Your task to perform on an android device: change the clock style Image 0: 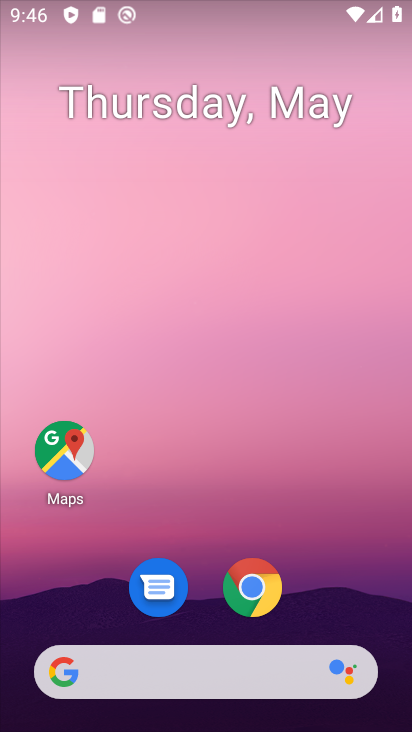
Step 0: drag from (332, 622) to (359, 136)
Your task to perform on an android device: change the clock style Image 1: 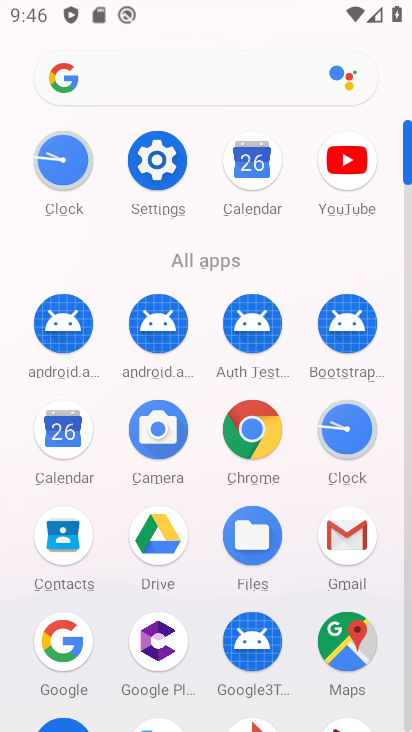
Step 1: click (141, 273)
Your task to perform on an android device: change the clock style Image 2: 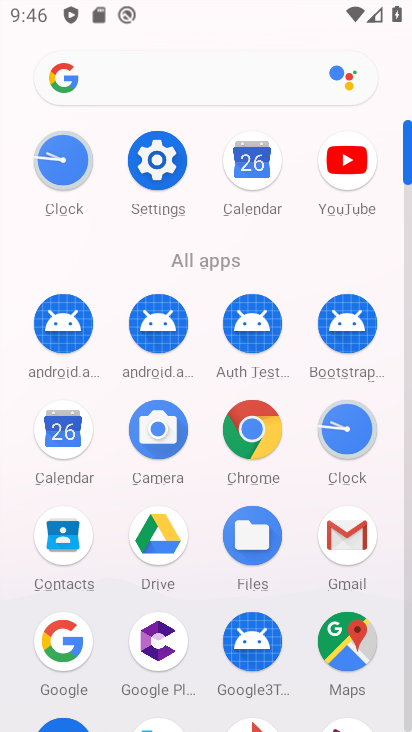
Step 2: click (336, 427)
Your task to perform on an android device: change the clock style Image 3: 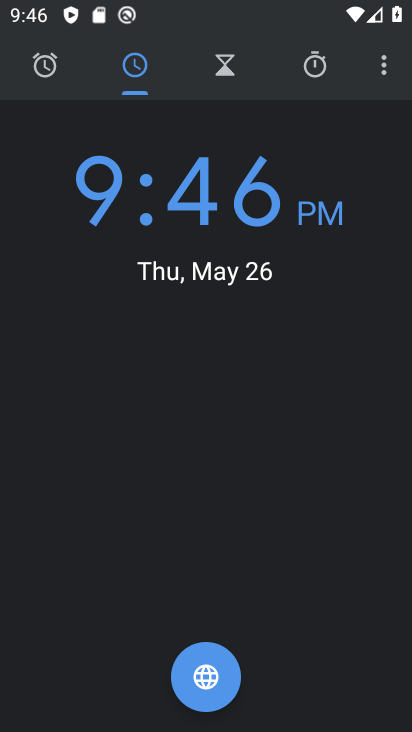
Step 3: click (386, 70)
Your task to perform on an android device: change the clock style Image 4: 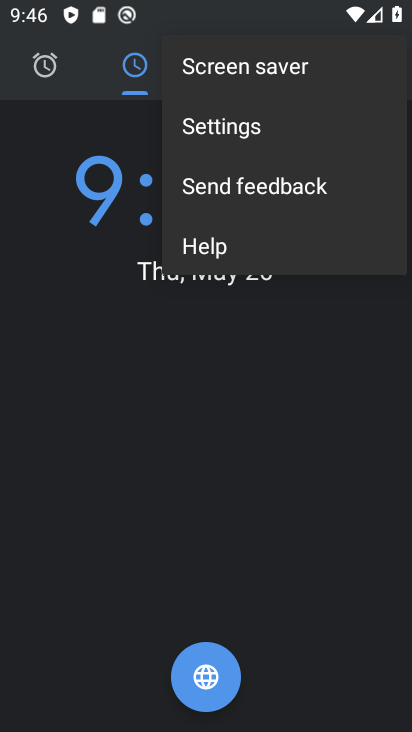
Step 4: click (263, 125)
Your task to perform on an android device: change the clock style Image 5: 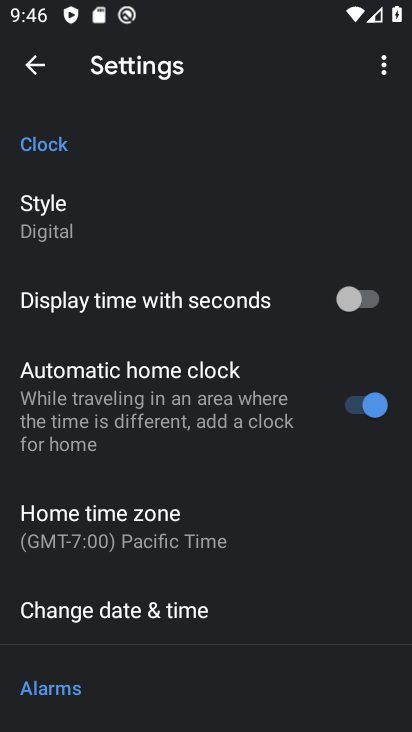
Step 5: click (67, 231)
Your task to perform on an android device: change the clock style Image 6: 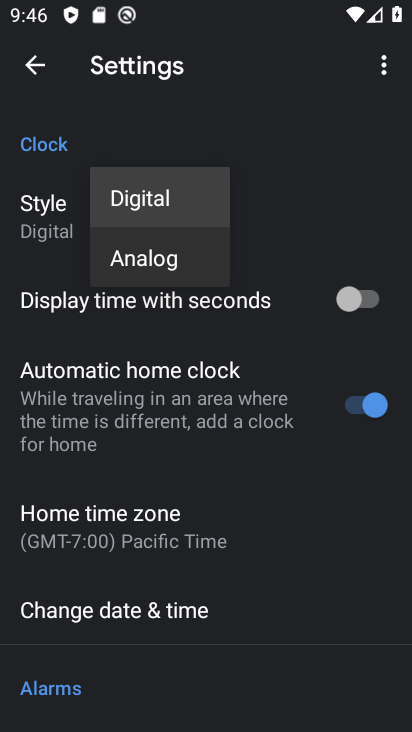
Step 6: click (126, 260)
Your task to perform on an android device: change the clock style Image 7: 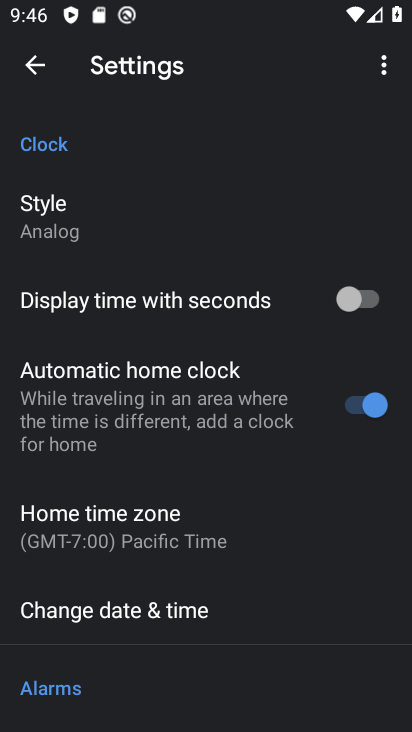
Step 7: task complete